Your task to perform on an android device: Show me productivity apps on the Play Store Image 0: 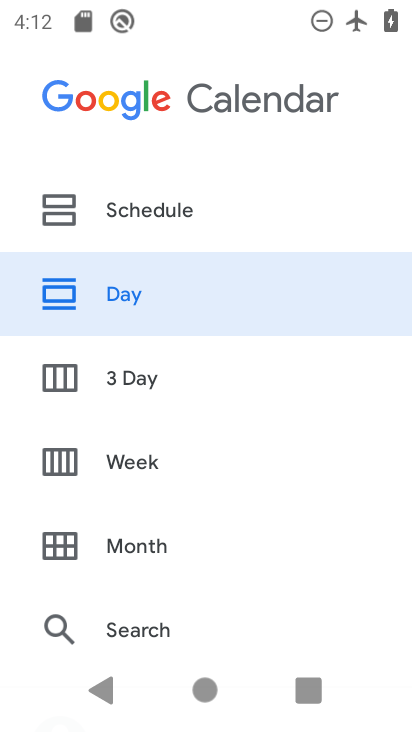
Step 0: press home button
Your task to perform on an android device: Show me productivity apps on the Play Store Image 1: 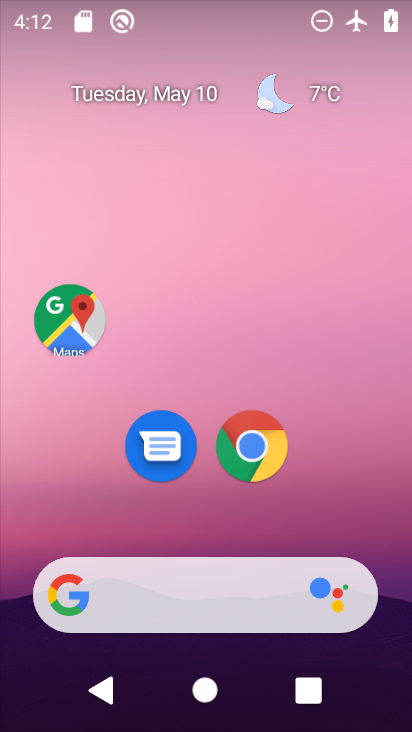
Step 1: drag from (312, 529) to (255, 100)
Your task to perform on an android device: Show me productivity apps on the Play Store Image 2: 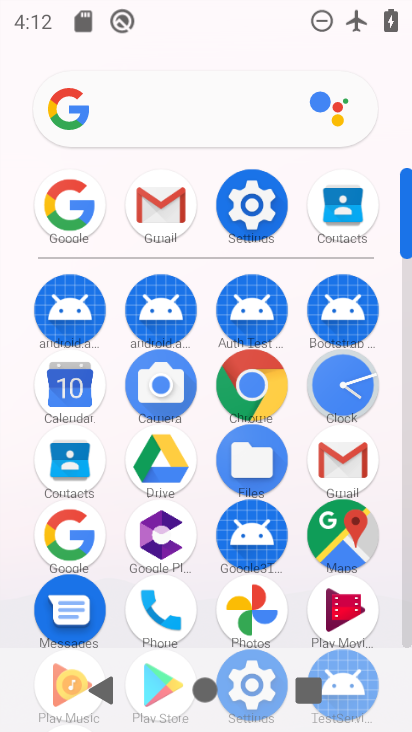
Step 2: drag from (199, 639) to (212, 308)
Your task to perform on an android device: Show me productivity apps on the Play Store Image 3: 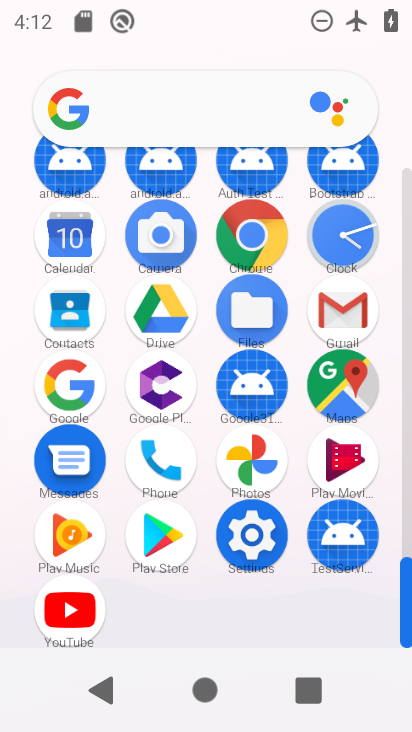
Step 3: click (175, 550)
Your task to perform on an android device: Show me productivity apps on the Play Store Image 4: 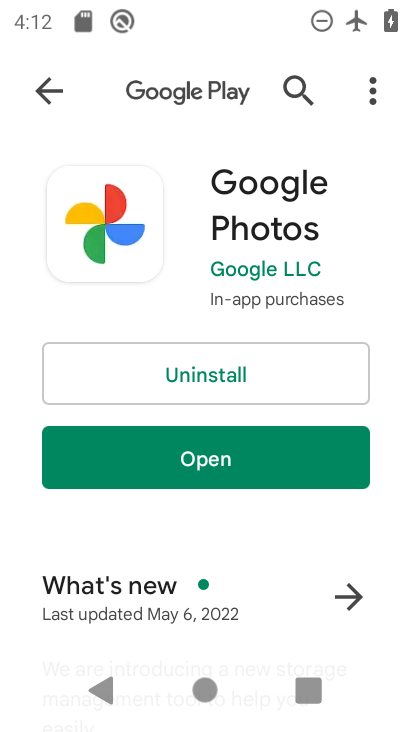
Step 4: click (51, 86)
Your task to perform on an android device: Show me productivity apps on the Play Store Image 5: 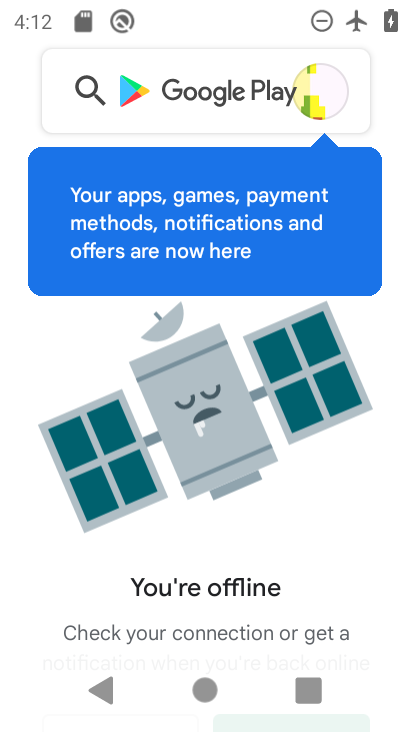
Step 5: click (186, 91)
Your task to perform on an android device: Show me productivity apps on the Play Store Image 6: 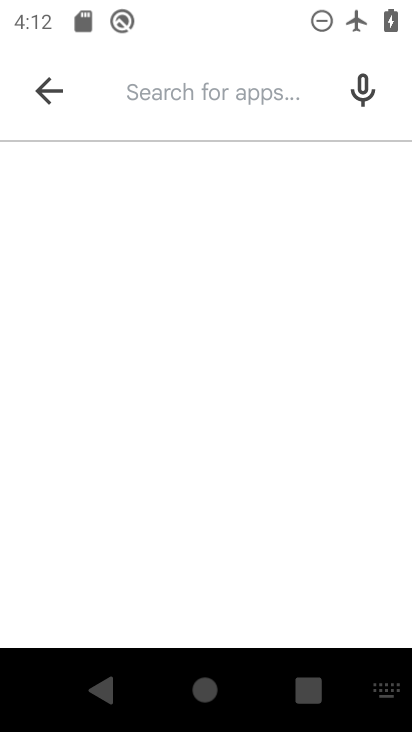
Step 6: type "productivity apps"
Your task to perform on an android device: Show me productivity apps on the Play Store Image 7: 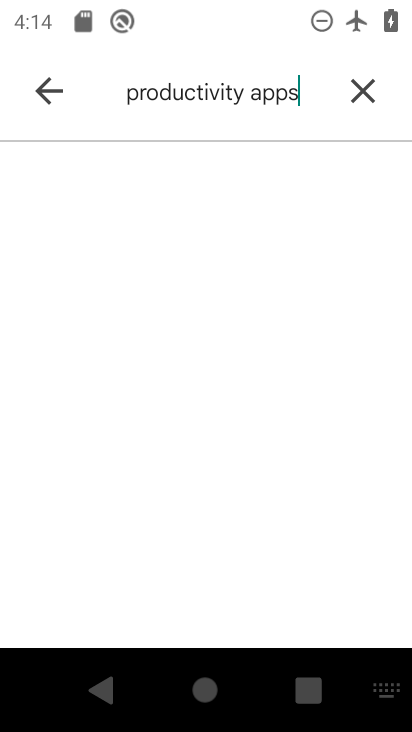
Step 7: task complete